Your task to perform on an android device: Search for "usb-a" on newegg, select the first entry, add it to the cart, then select checkout. Image 0: 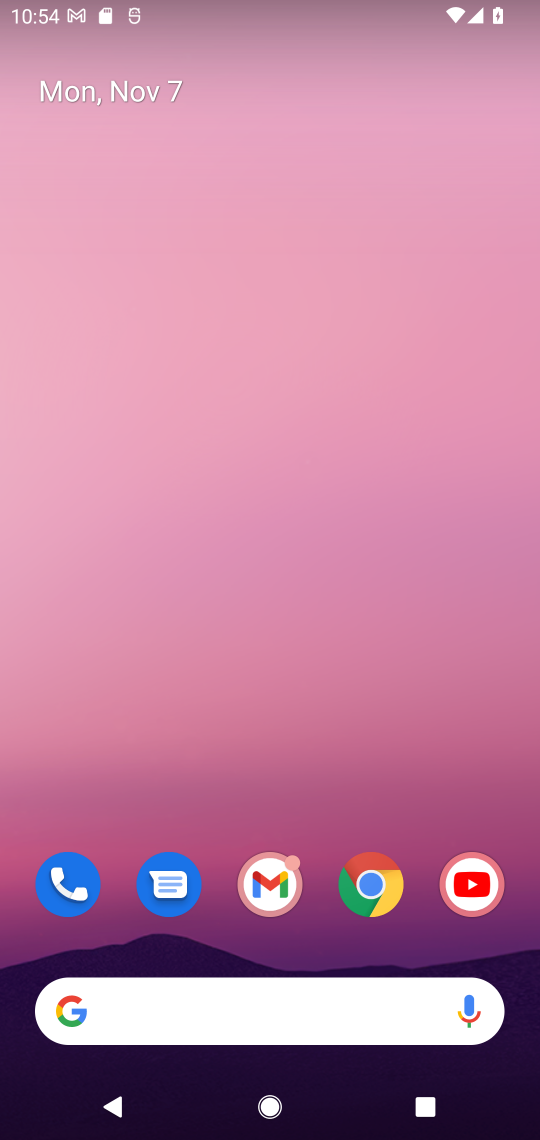
Step 0: click (366, 887)
Your task to perform on an android device: Search for "usb-a" on newegg, select the first entry, add it to the cart, then select checkout. Image 1: 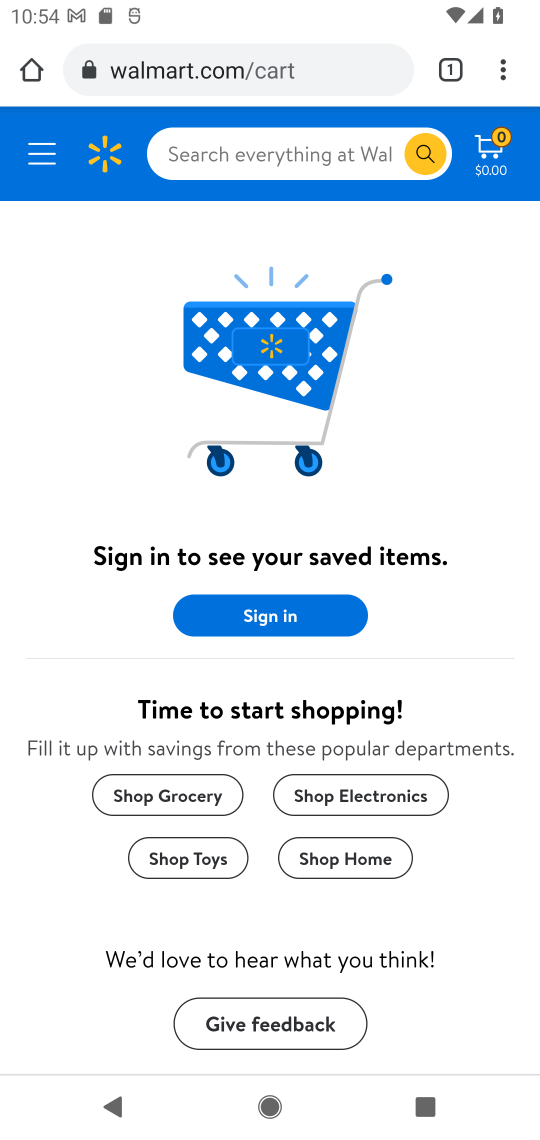
Step 1: click (242, 63)
Your task to perform on an android device: Search for "usb-a" on newegg, select the first entry, add it to the cart, then select checkout. Image 2: 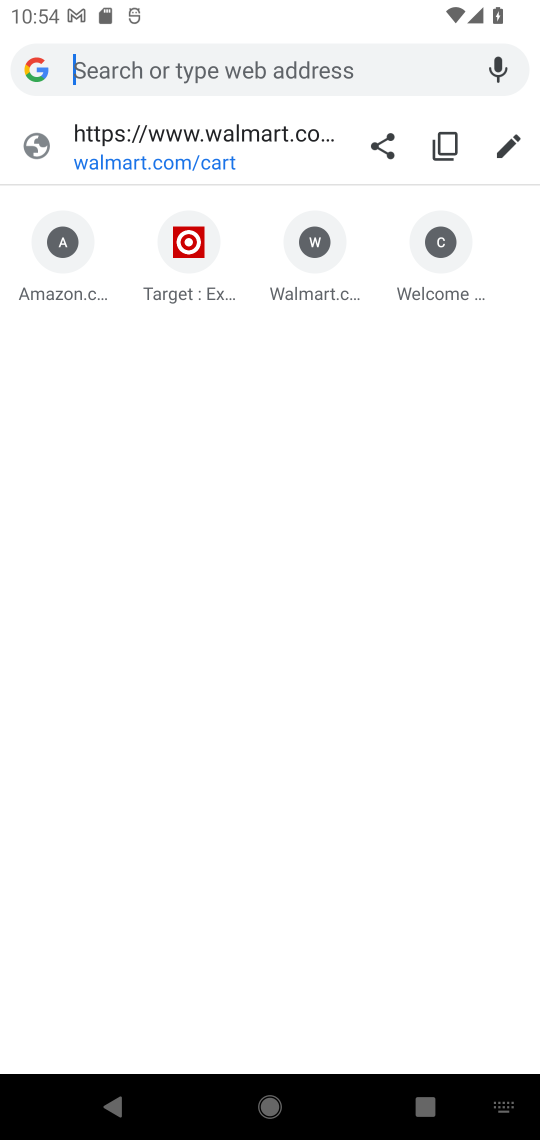
Step 2: type "newegg"
Your task to perform on an android device: Search for "usb-a" on newegg, select the first entry, add it to the cart, then select checkout. Image 3: 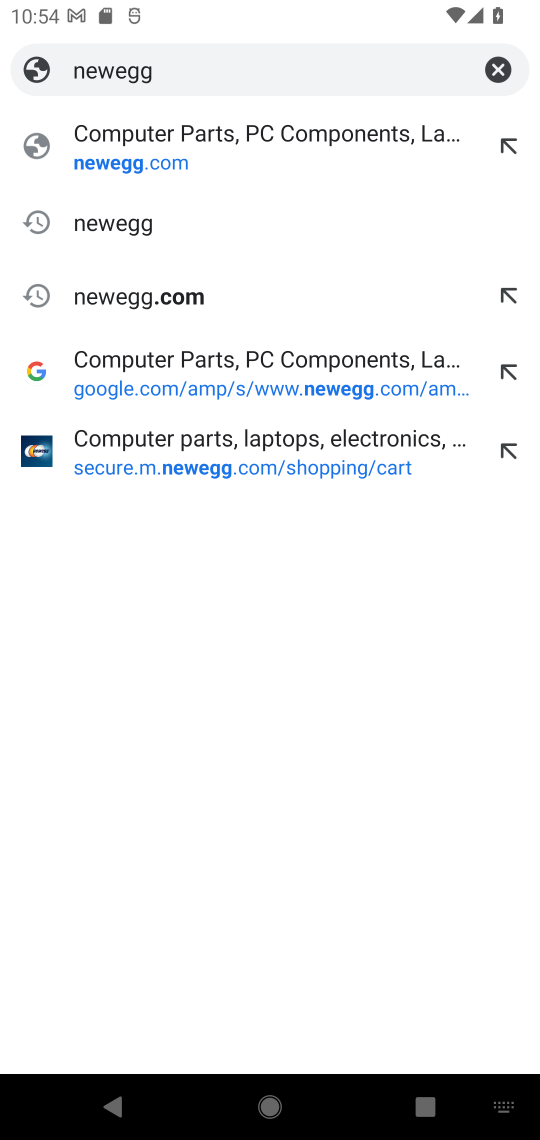
Step 3: click (168, 294)
Your task to perform on an android device: Search for "usb-a" on newegg, select the first entry, add it to the cart, then select checkout. Image 4: 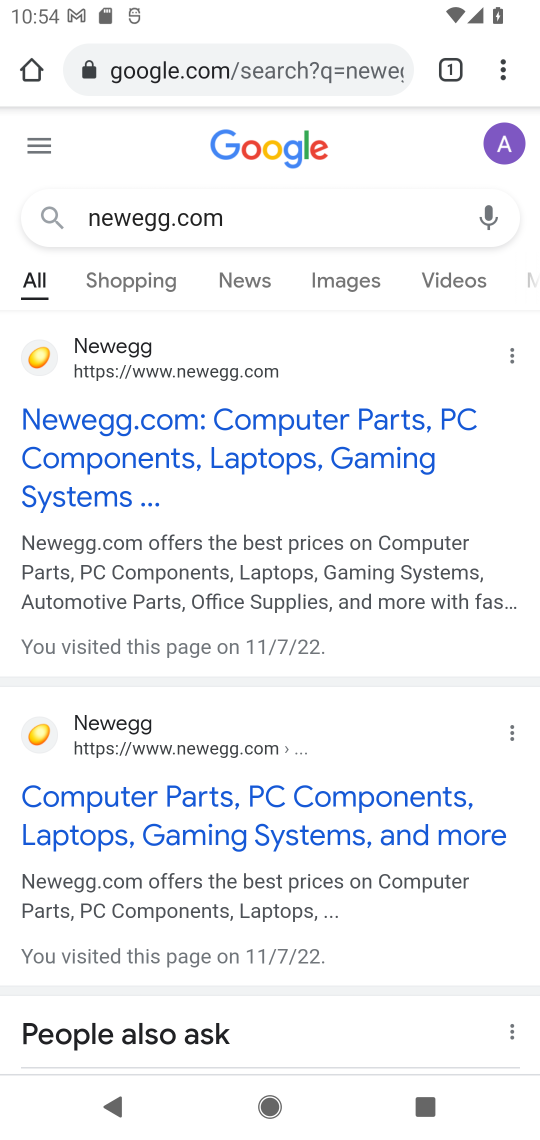
Step 4: click (204, 732)
Your task to perform on an android device: Search for "usb-a" on newegg, select the first entry, add it to the cart, then select checkout. Image 5: 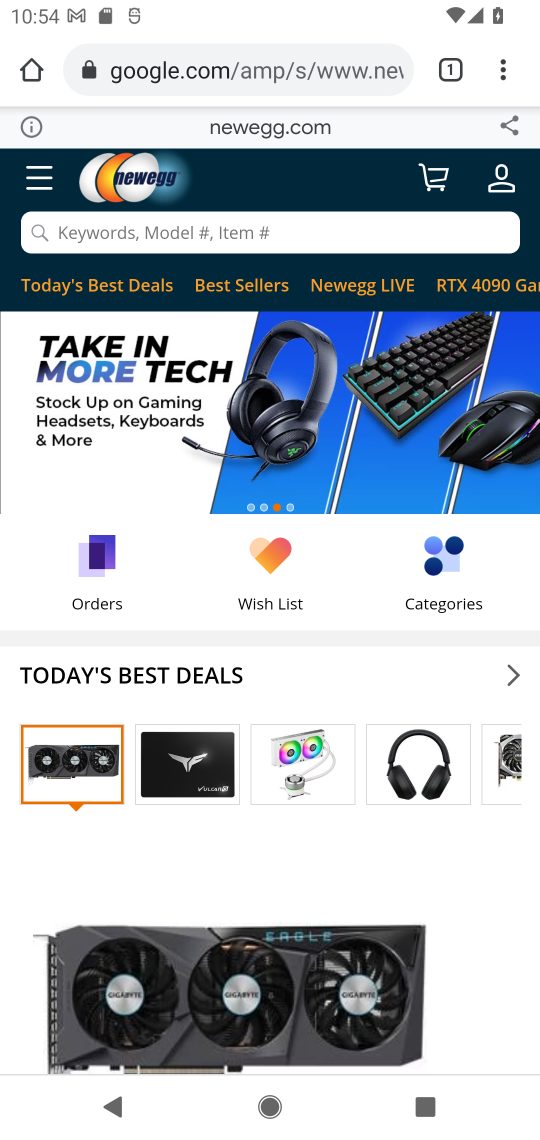
Step 5: click (362, 220)
Your task to perform on an android device: Search for "usb-a" on newegg, select the first entry, add it to the cart, then select checkout. Image 6: 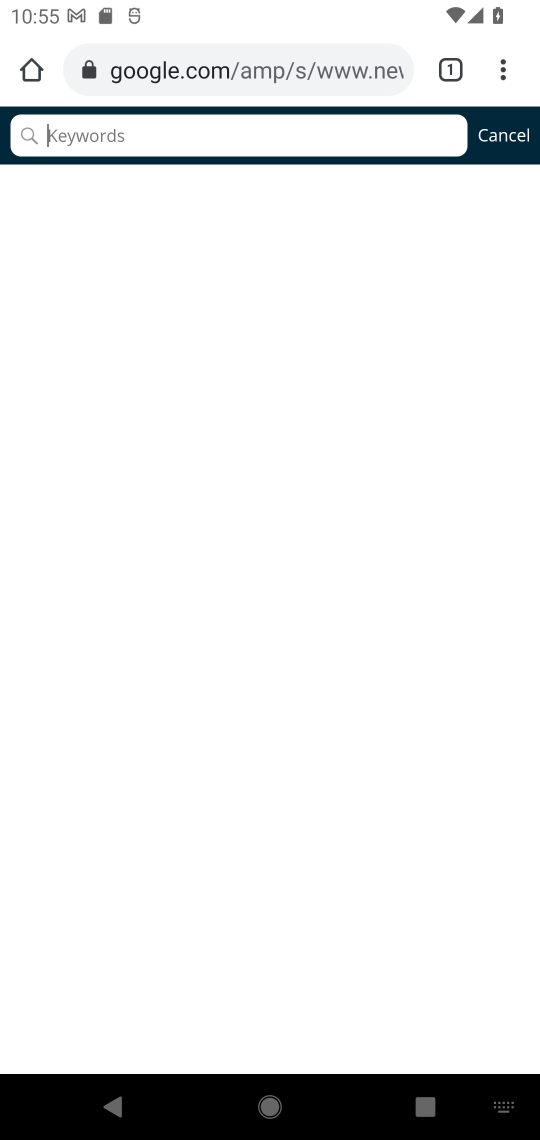
Step 6: type "usb-a"
Your task to perform on an android device: Search for "usb-a" on newegg, select the first entry, add it to the cart, then select checkout. Image 7: 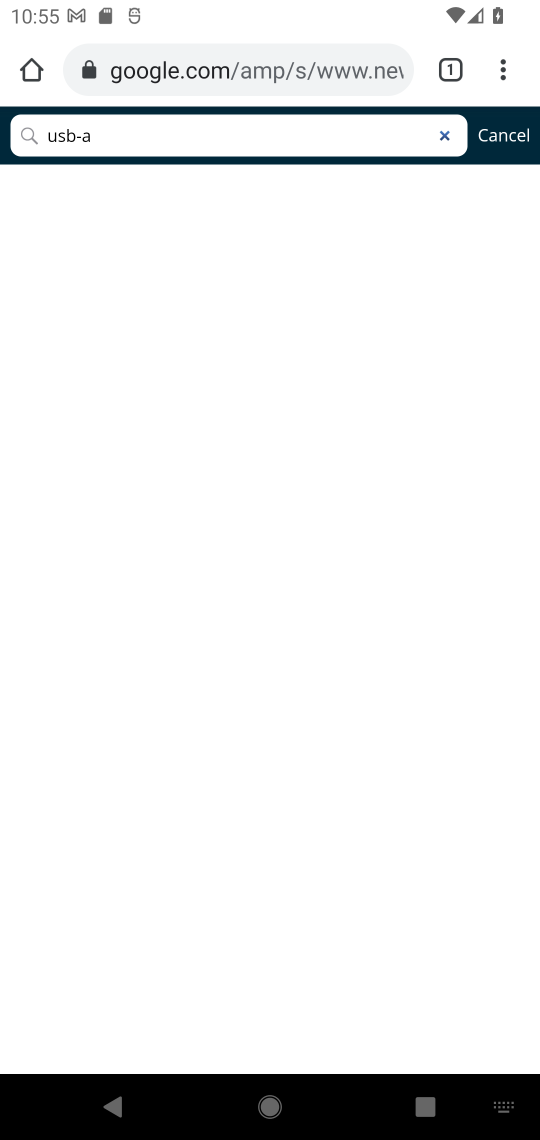
Step 7: click (251, 135)
Your task to perform on an android device: Search for "usb-a" on newegg, select the first entry, add it to the cart, then select checkout. Image 8: 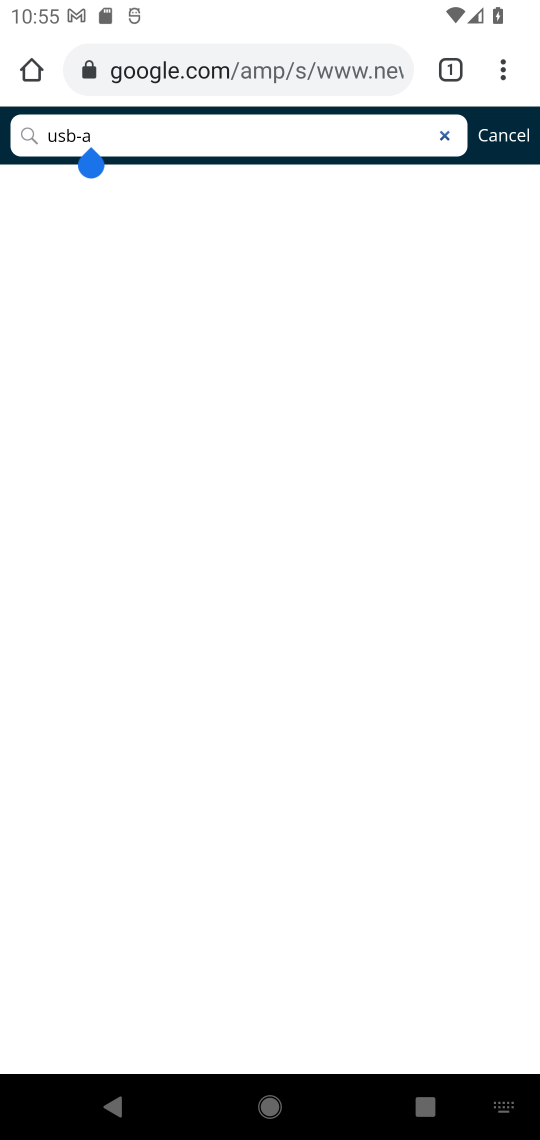
Step 8: task complete